Your task to perform on an android device: toggle wifi Image 0: 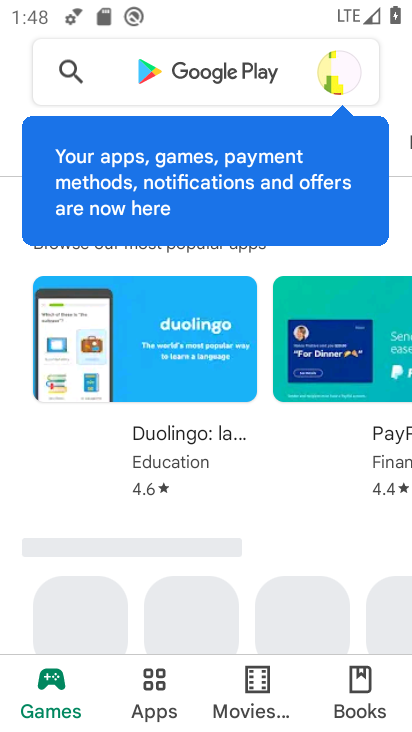
Step 0: press home button
Your task to perform on an android device: toggle wifi Image 1: 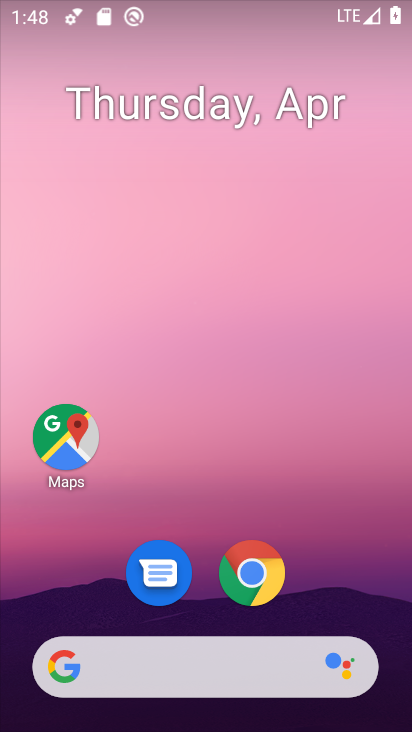
Step 1: drag from (220, 4) to (250, 325)
Your task to perform on an android device: toggle wifi Image 2: 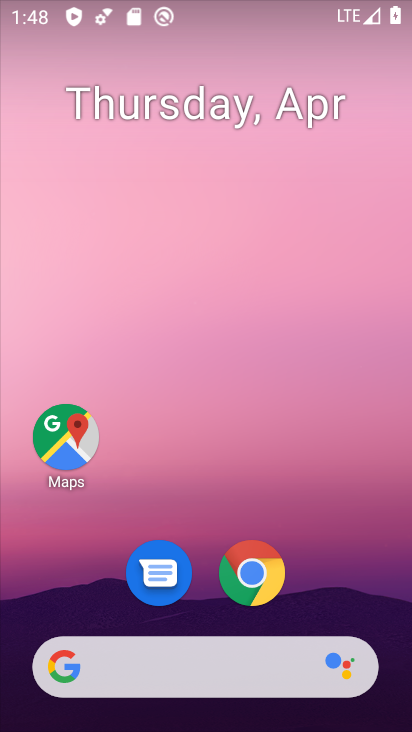
Step 2: drag from (283, 2) to (269, 508)
Your task to perform on an android device: toggle wifi Image 3: 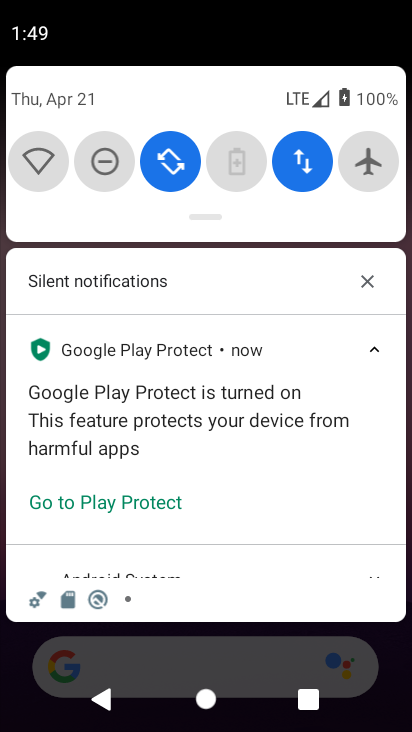
Step 3: click (45, 163)
Your task to perform on an android device: toggle wifi Image 4: 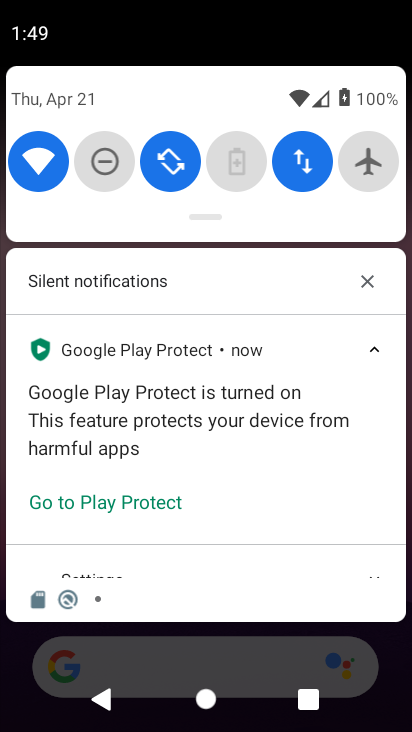
Step 4: task complete